Your task to perform on an android device: turn on data saver in the chrome app Image 0: 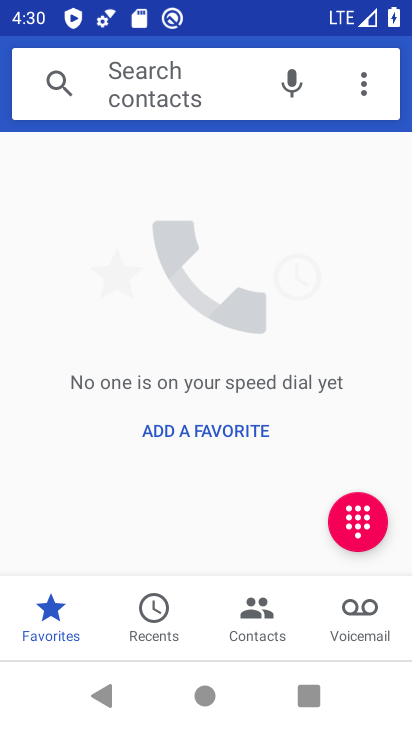
Step 0: press home button
Your task to perform on an android device: turn on data saver in the chrome app Image 1: 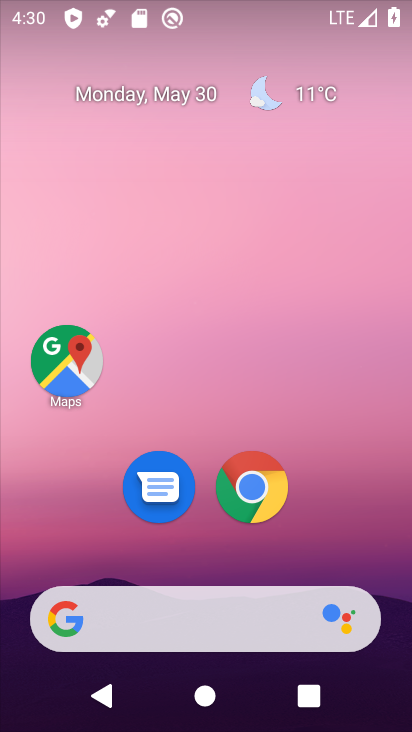
Step 1: click (254, 485)
Your task to perform on an android device: turn on data saver in the chrome app Image 2: 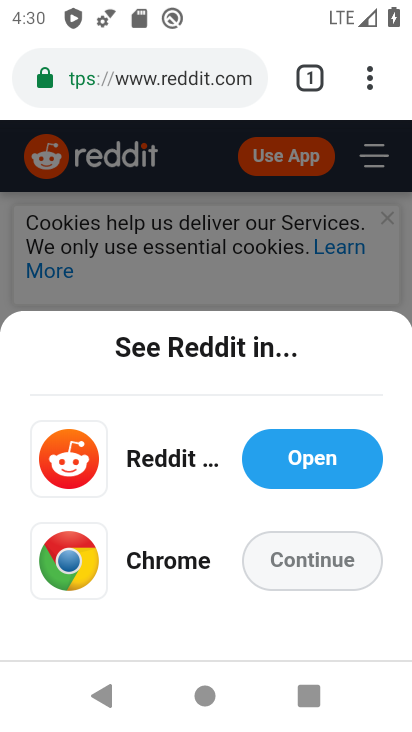
Step 2: click (365, 88)
Your task to perform on an android device: turn on data saver in the chrome app Image 3: 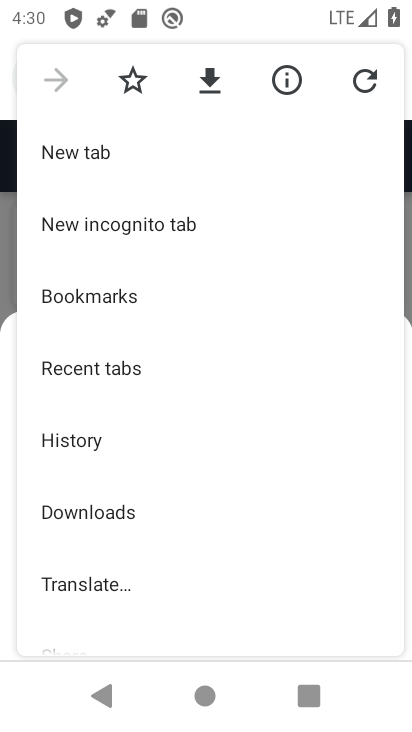
Step 3: drag from (204, 549) to (207, 175)
Your task to perform on an android device: turn on data saver in the chrome app Image 4: 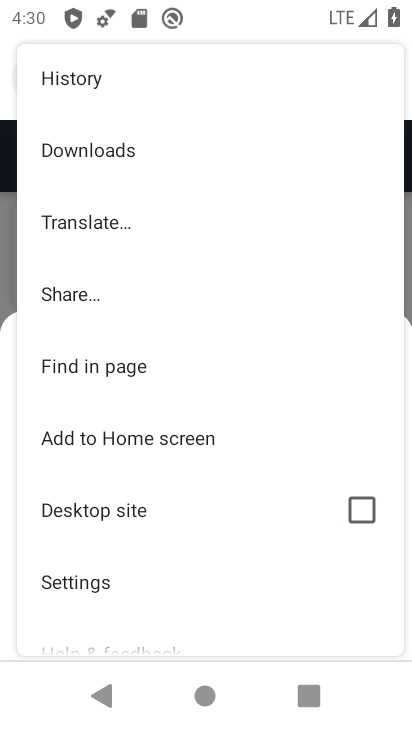
Step 4: click (100, 594)
Your task to perform on an android device: turn on data saver in the chrome app Image 5: 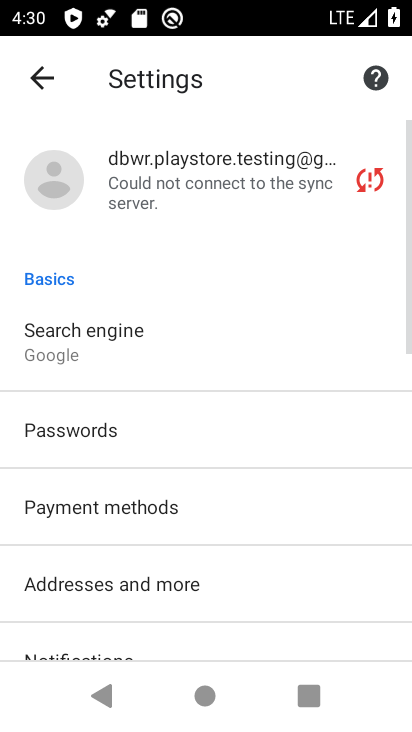
Step 5: drag from (252, 602) to (221, 166)
Your task to perform on an android device: turn on data saver in the chrome app Image 6: 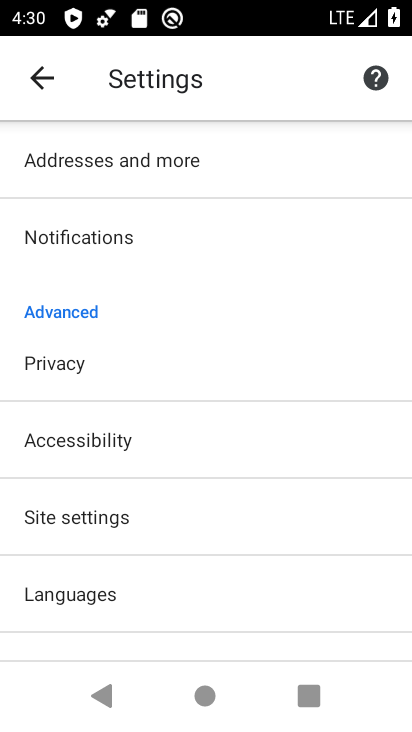
Step 6: drag from (164, 607) to (176, 272)
Your task to perform on an android device: turn on data saver in the chrome app Image 7: 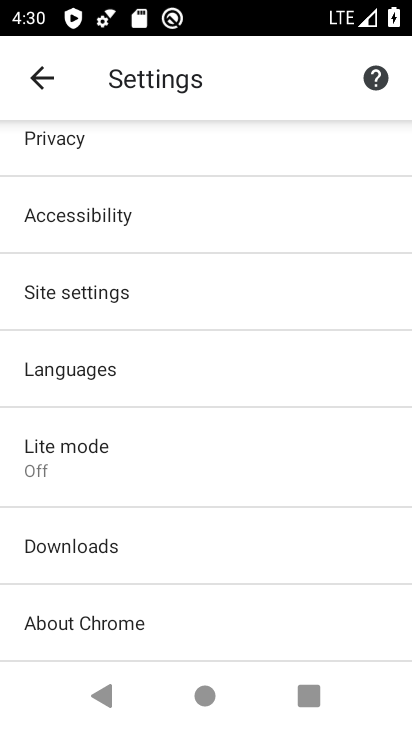
Step 7: click (51, 454)
Your task to perform on an android device: turn on data saver in the chrome app Image 8: 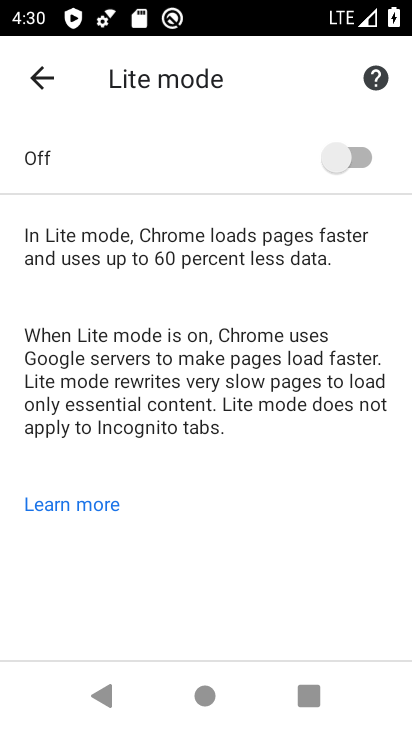
Step 8: click (366, 162)
Your task to perform on an android device: turn on data saver in the chrome app Image 9: 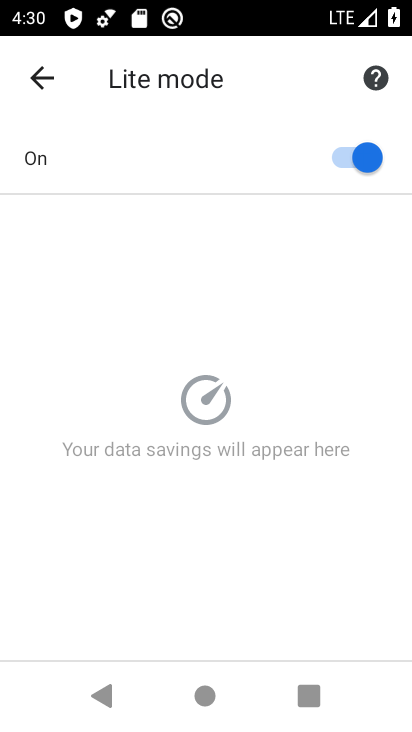
Step 9: task complete